Your task to perform on an android device: Add "lenovo thinkpad" to the cart on ebay.com, then select checkout. Image 0: 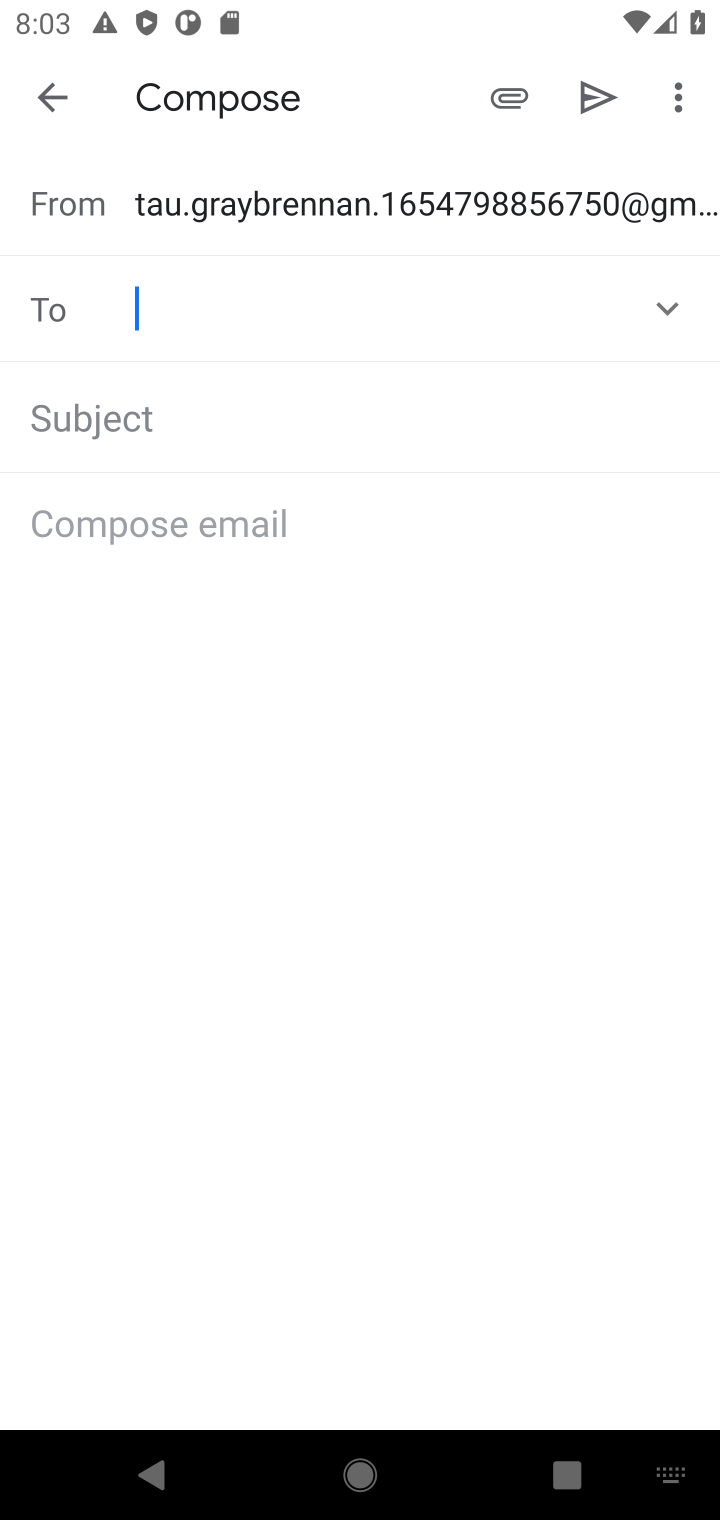
Step 0: press home button
Your task to perform on an android device: Add "lenovo thinkpad" to the cart on ebay.com, then select checkout. Image 1: 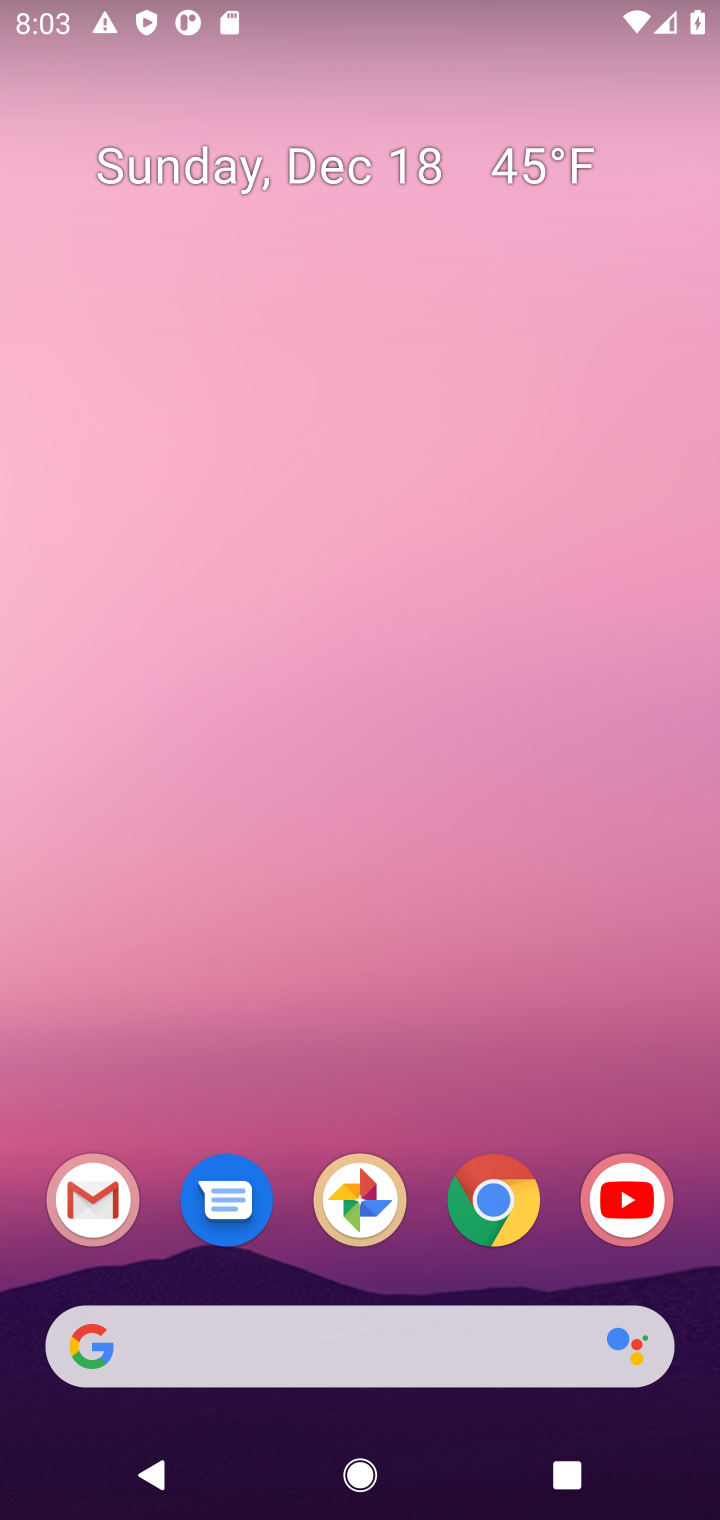
Step 1: click (496, 1216)
Your task to perform on an android device: Add "lenovo thinkpad" to the cart on ebay.com, then select checkout. Image 2: 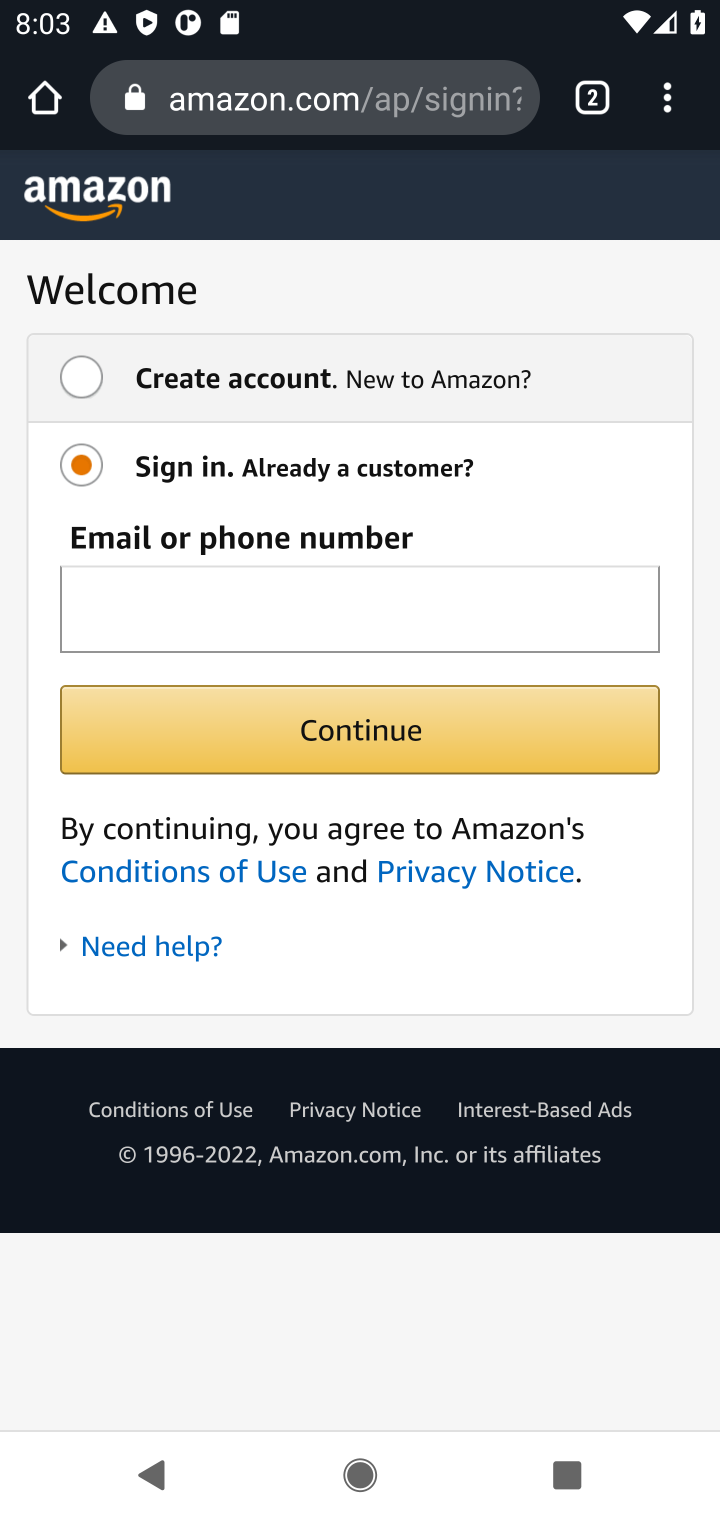
Step 2: click (276, 113)
Your task to perform on an android device: Add "lenovo thinkpad" to the cart on ebay.com, then select checkout. Image 3: 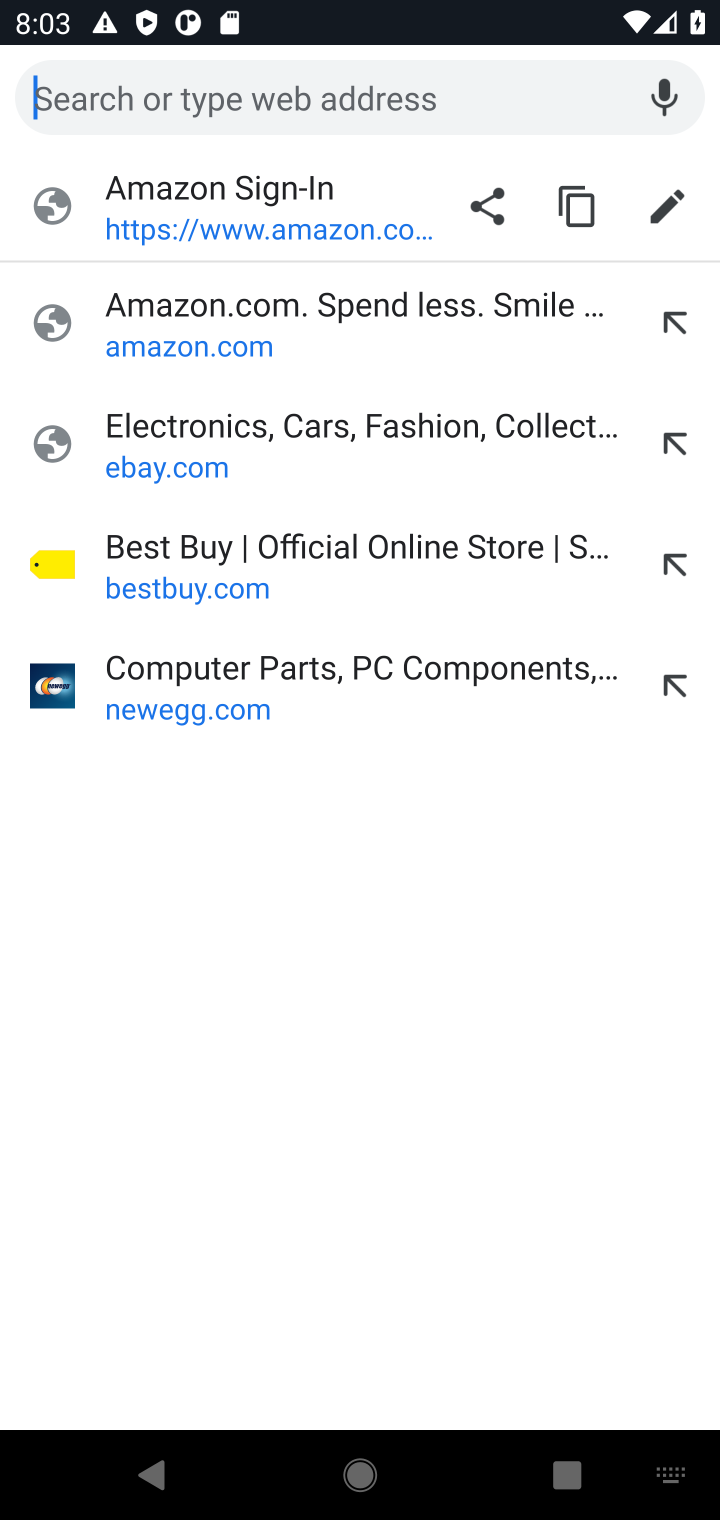
Step 3: click (159, 446)
Your task to perform on an android device: Add "lenovo thinkpad" to the cart on ebay.com, then select checkout. Image 4: 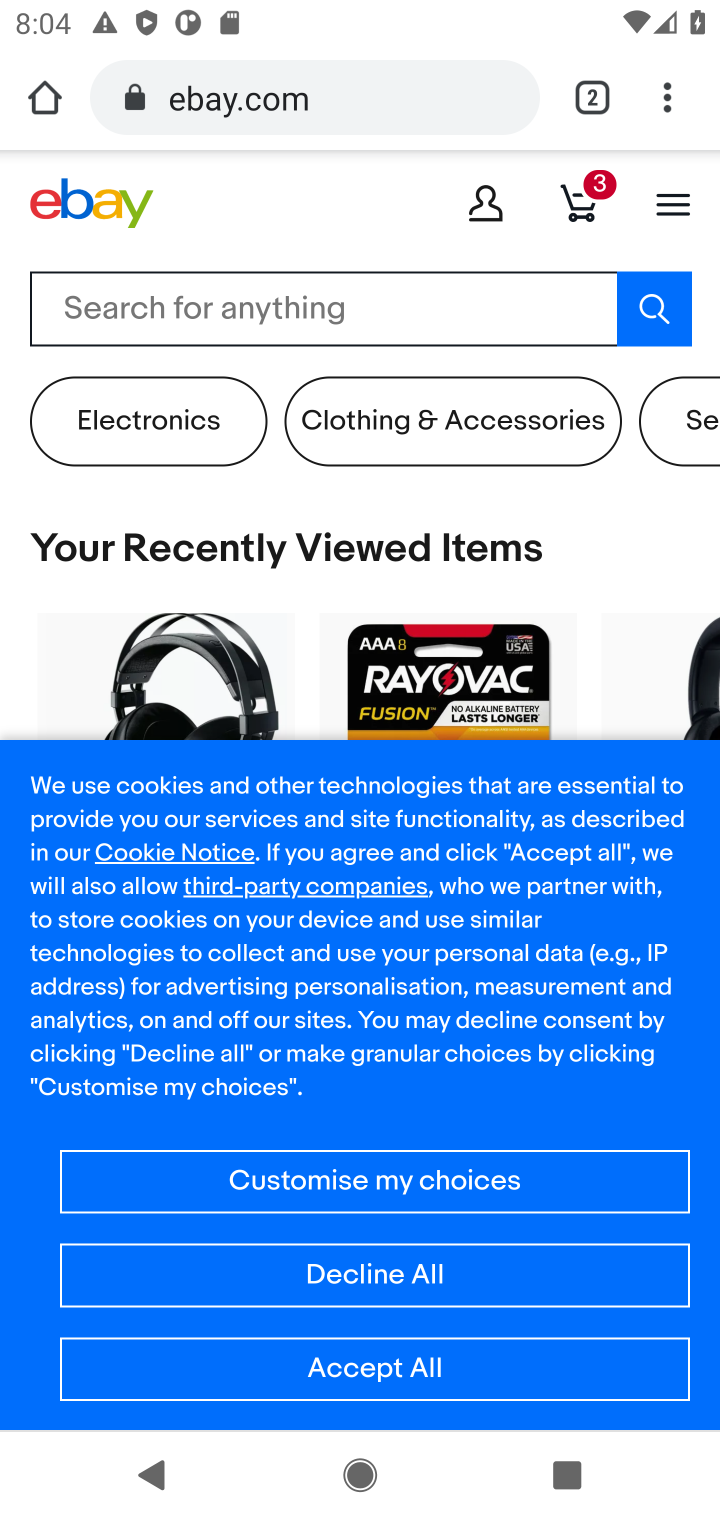
Step 4: click (91, 313)
Your task to perform on an android device: Add "lenovo thinkpad" to the cart on ebay.com, then select checkout. Image 5: 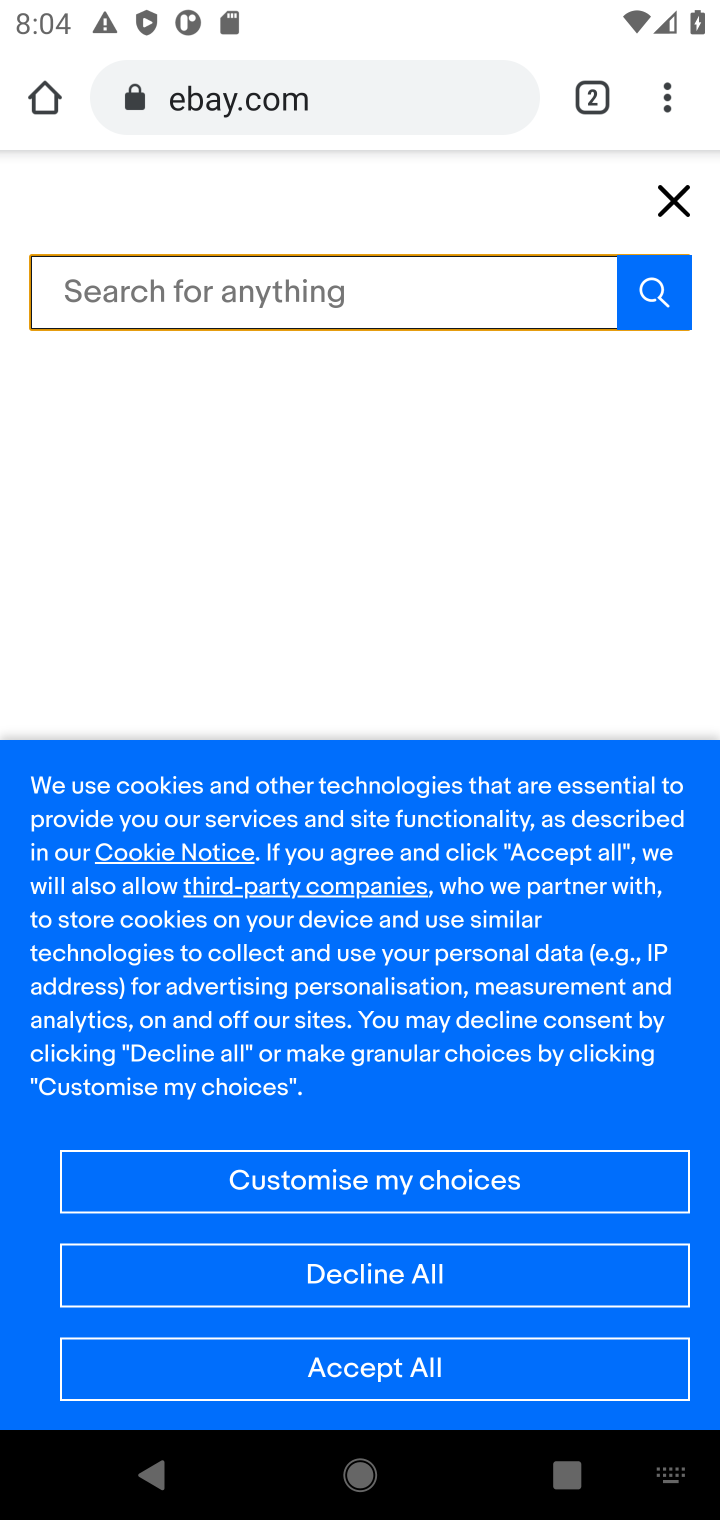
Step 5: type "lenovo thinkpad"
Your task to perform on an android device: Add "lenovo thinkpad" to the cart on ebay.com, then select checkout. Image 6: 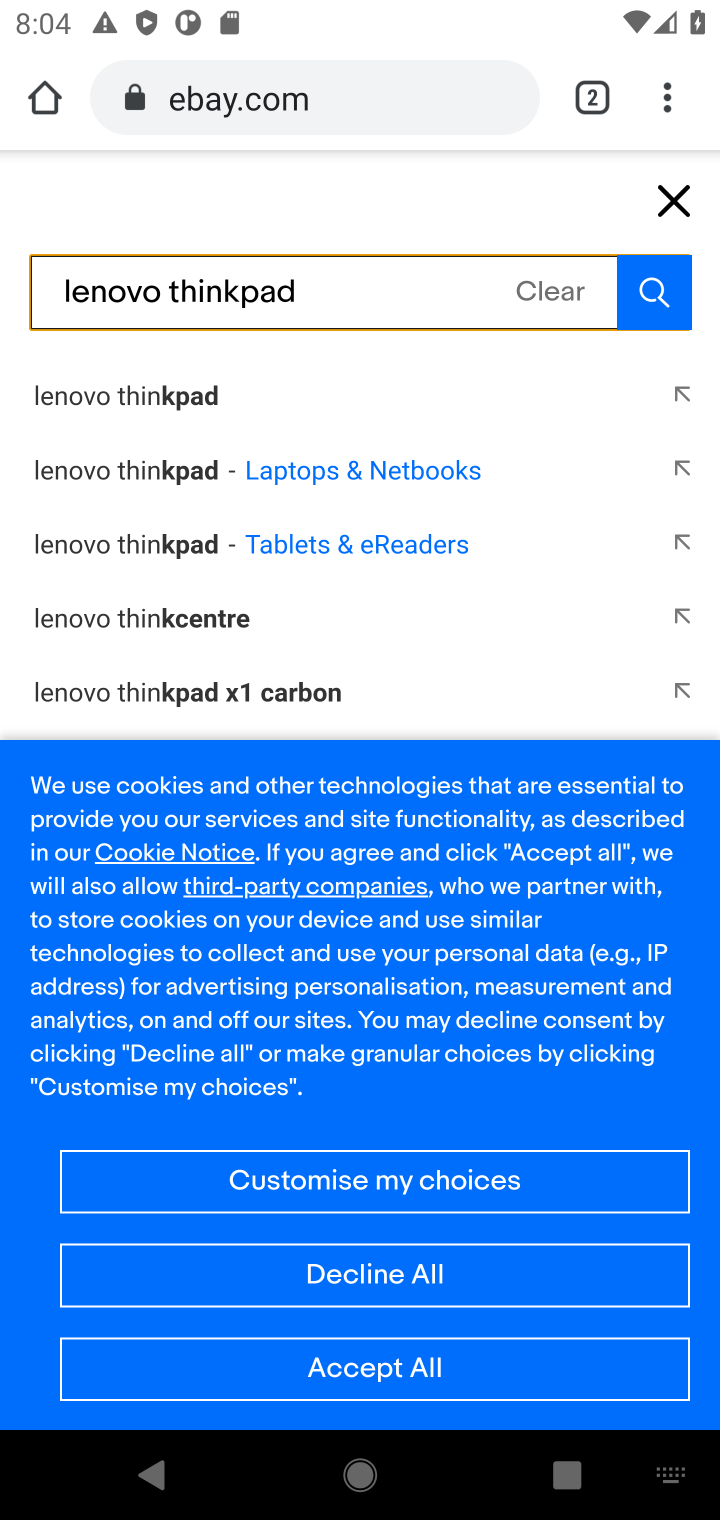
Step 6: click (89, 398)
Your task to perform on an android device: Add "lenovo thinkpad" to the cart on ebay.com, then select checkout. Image 7: 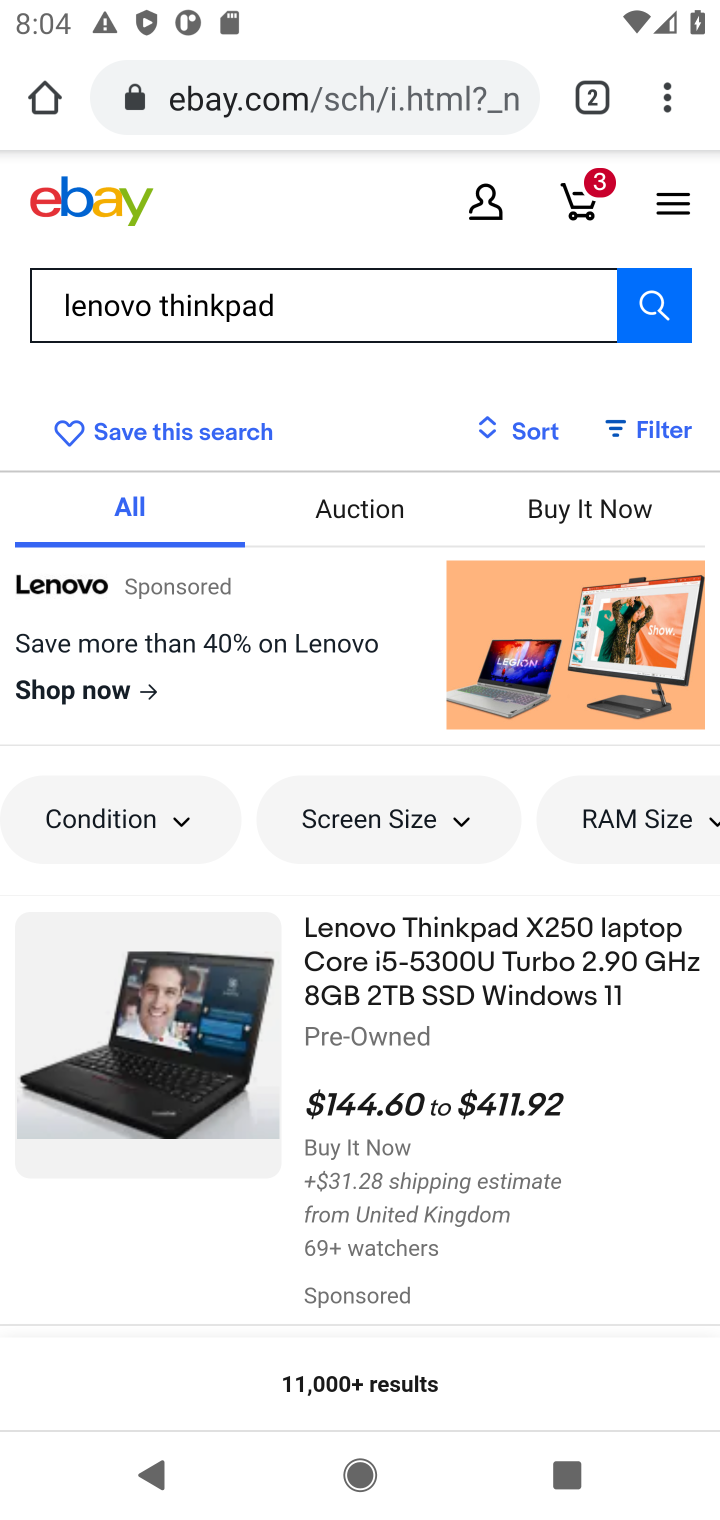
Step 7: drag from (353, 1092) to (325, 603)
Your task to perform on an android device: Add "lenovo thinkpad" to the cart on ebay.com, then select checkout. Image 8: 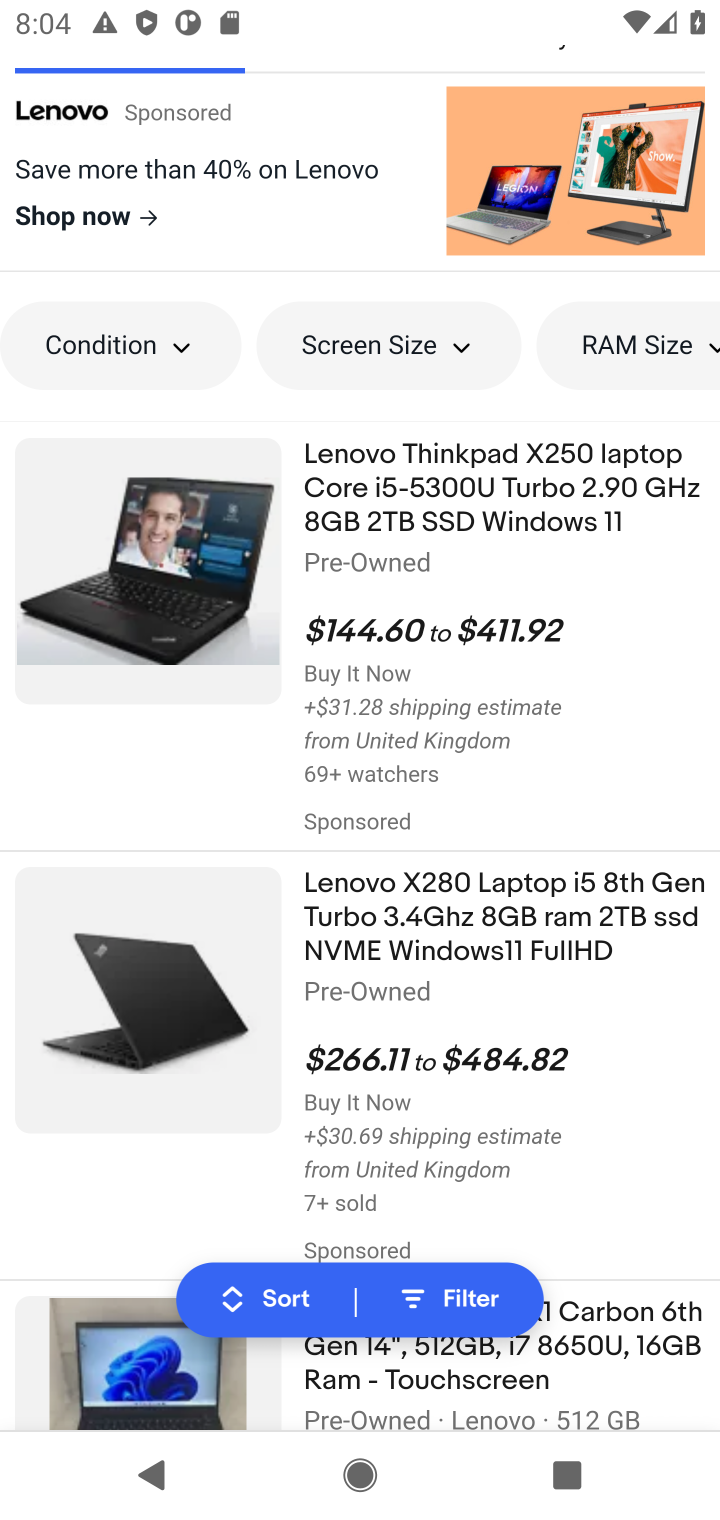
Step 8: click (470, 515)
Your task to perform on an android device: Add "lenovo thinkpad" to the cart on ebay.com, then select checkout. Image 9: 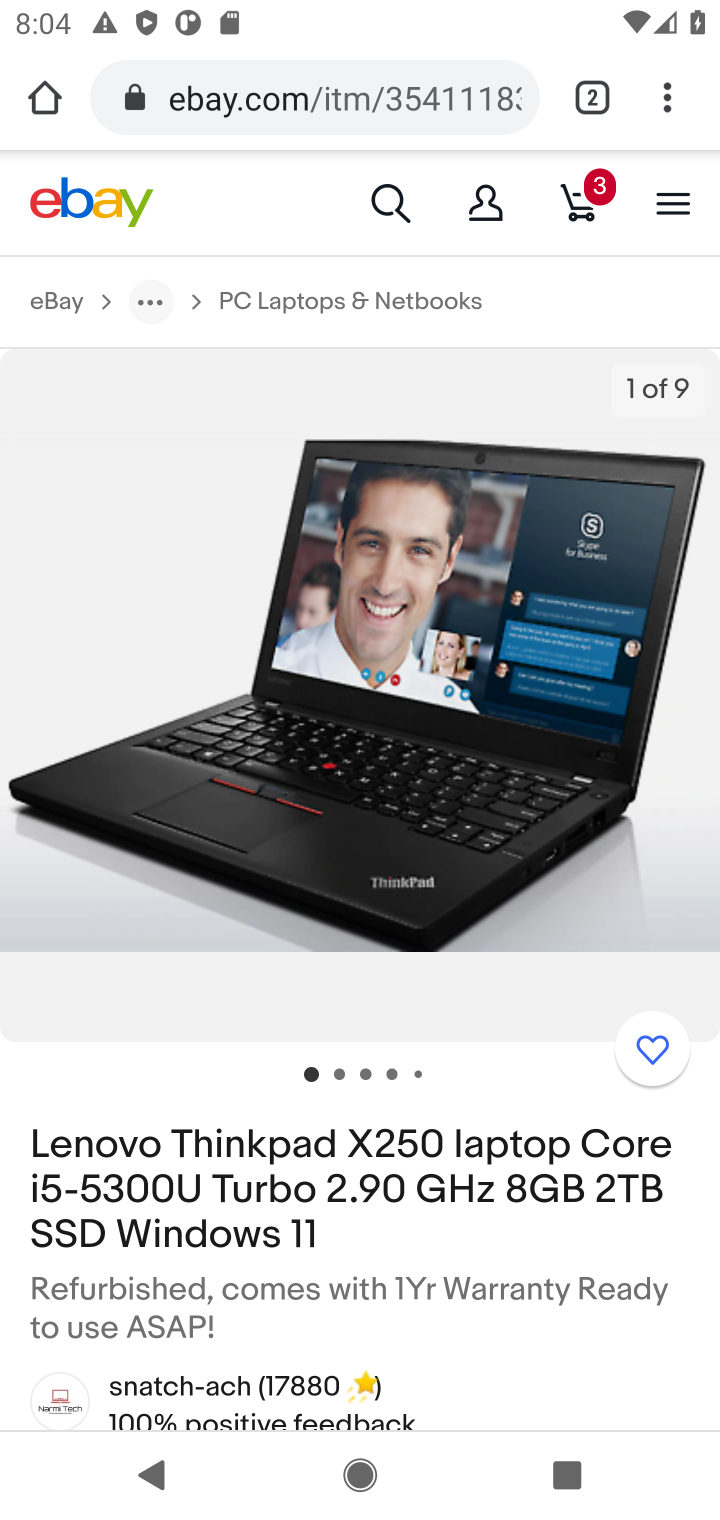
Step 9: drag from (355, 1106) to (351, 402)
Your task to perform on an android device: Add "lenovo thinkpad" to the cart on ebay.com, then select checkout. Image 10: 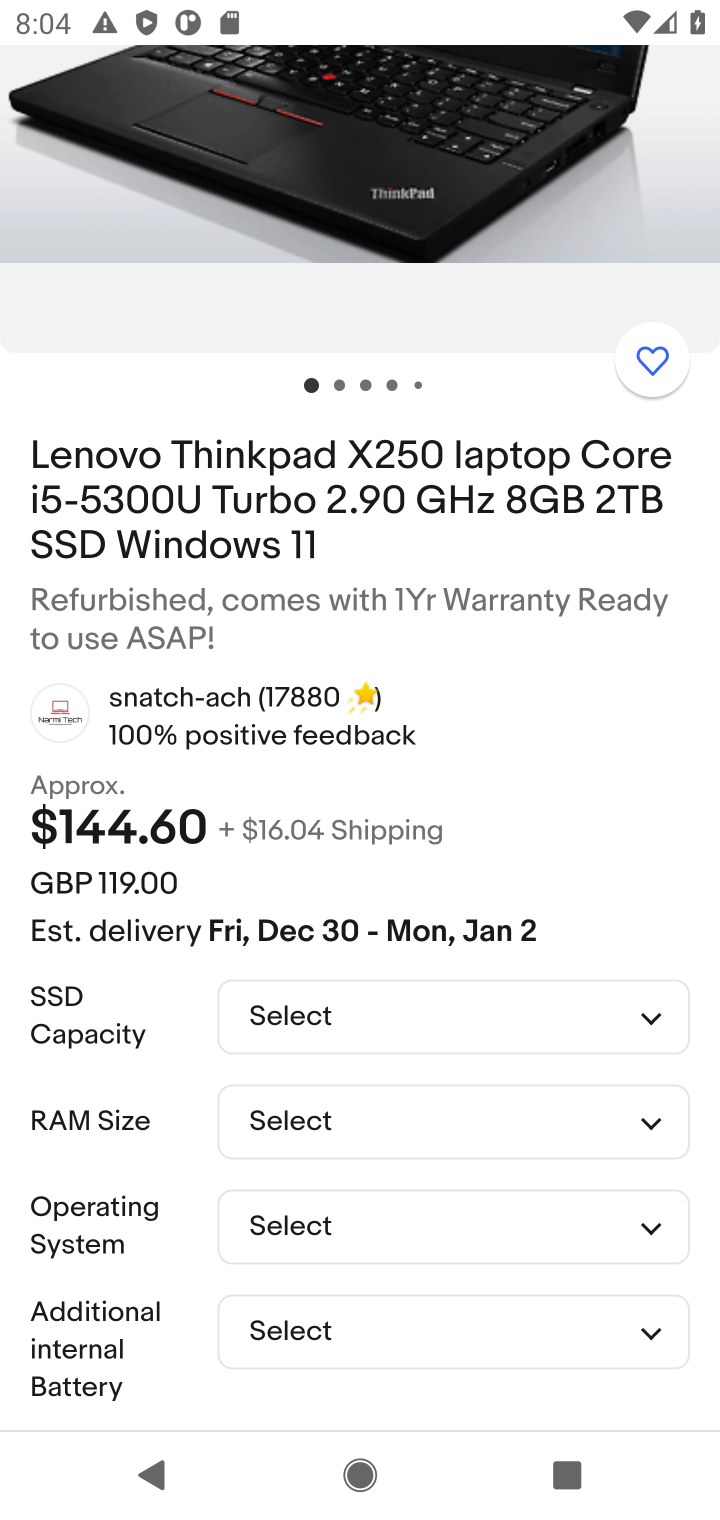
Step 10: drag from (296, 993) to (288, 462)
Your task to perform on an android device: Add "lenovo thinkpad" to the cart on ebay.com, then select checkout. Image 11: 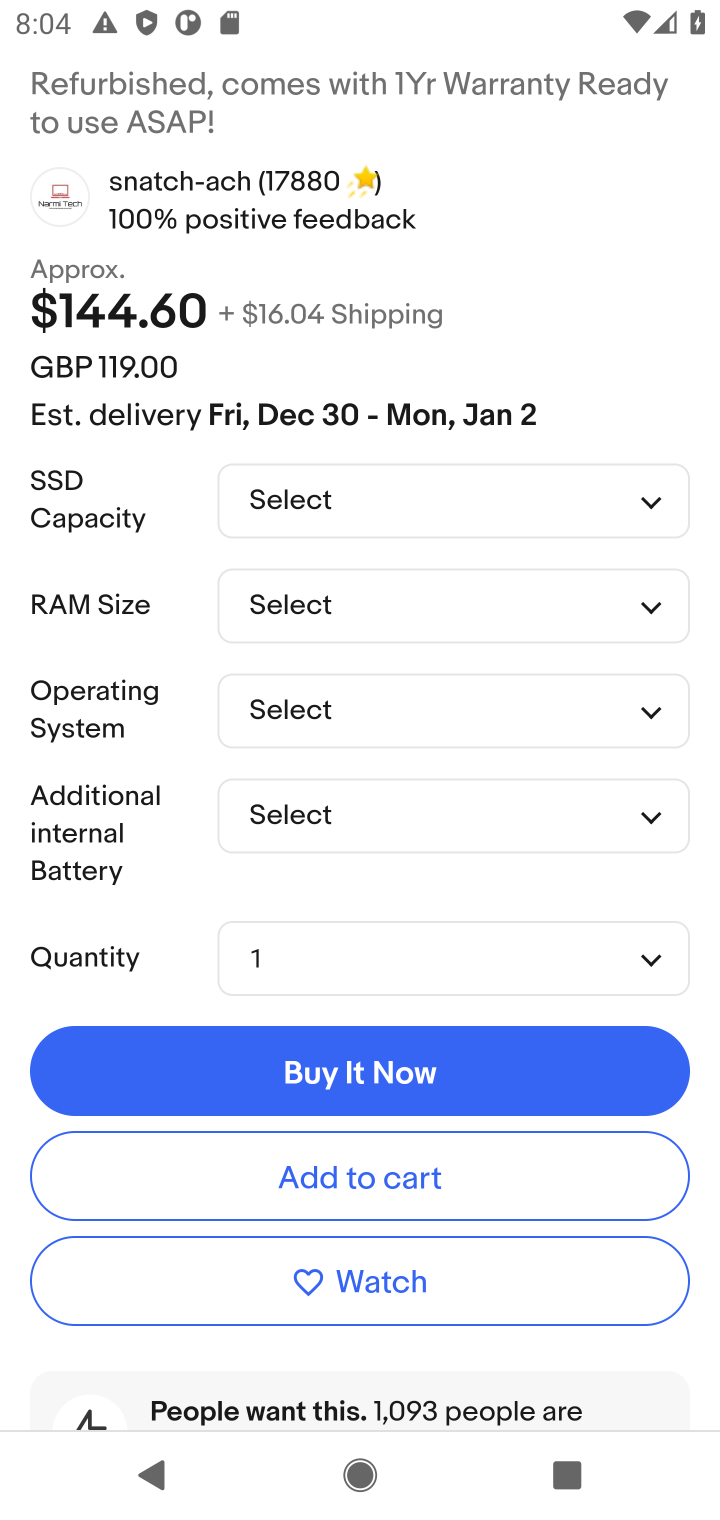
Step 11: click (315, 1174)
Your task to perform on an android device: Add "lenovo thinkpad" to the cart on ebay.com, then select checkout. Image 12: 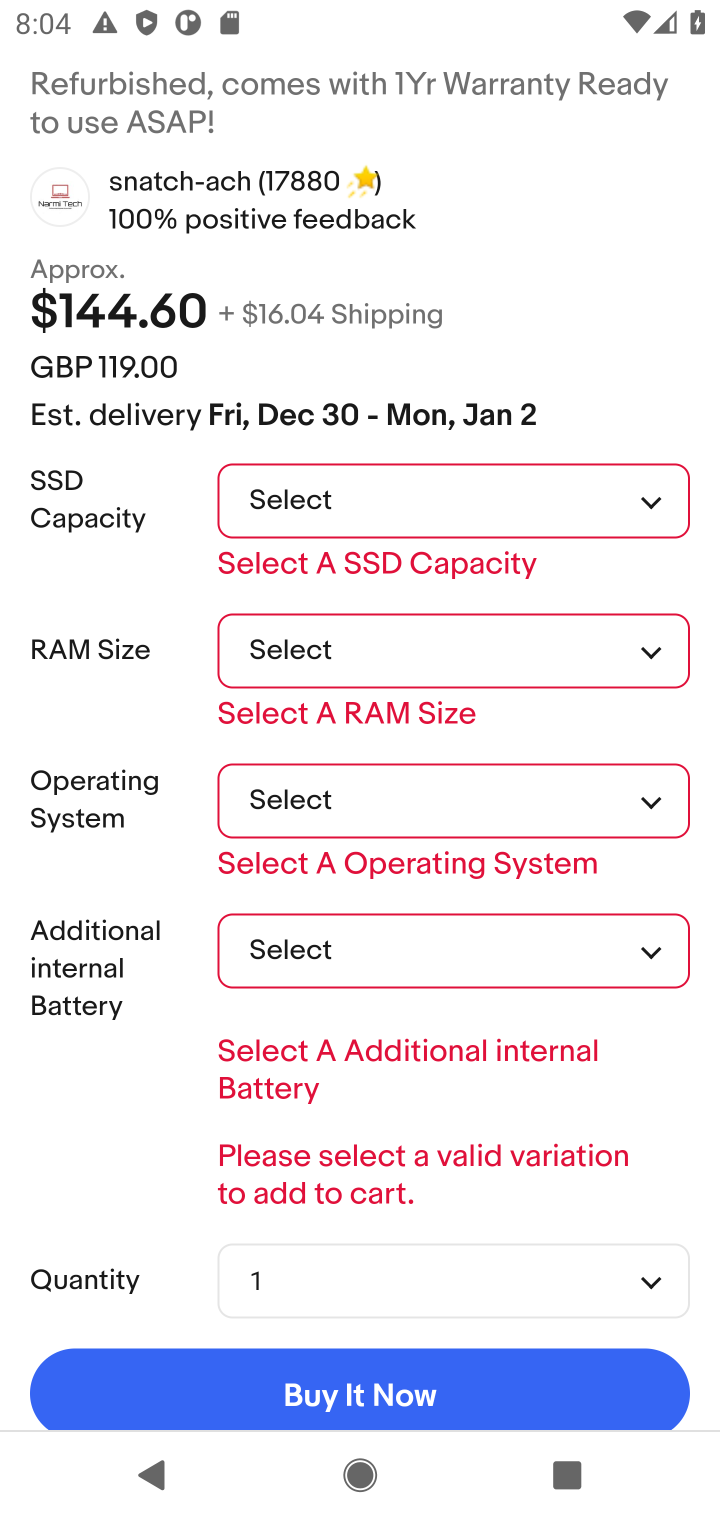
Step 12: click (647, 511)
Your task to perform on an android device: Add "lenovo thinkpad" to the cart on ebay.com, then select checkout. Image 13: 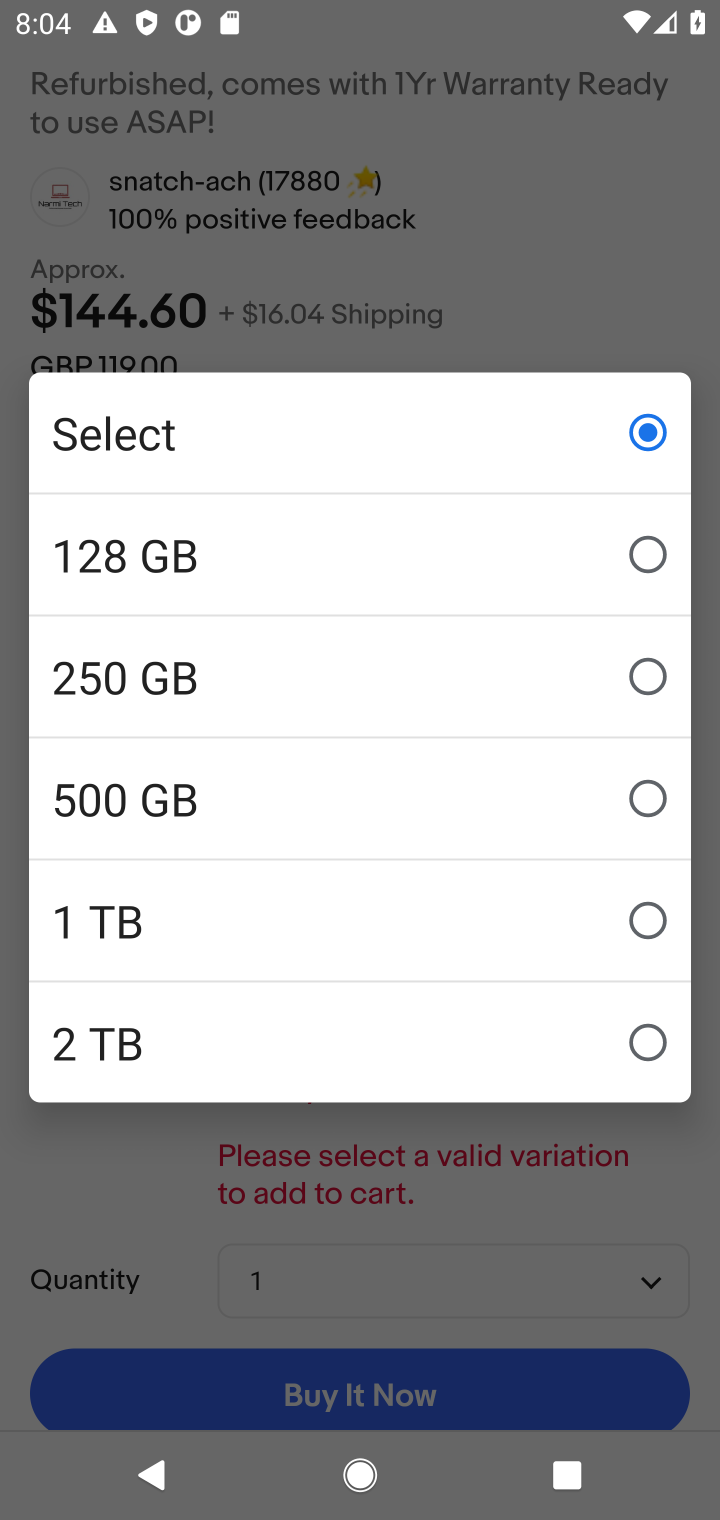
Step 13: click (257, 572)
Your task to perform on an android device: Add "lenovo thinkpad" to the cart on ebay.com, then select checkout. Image 14: 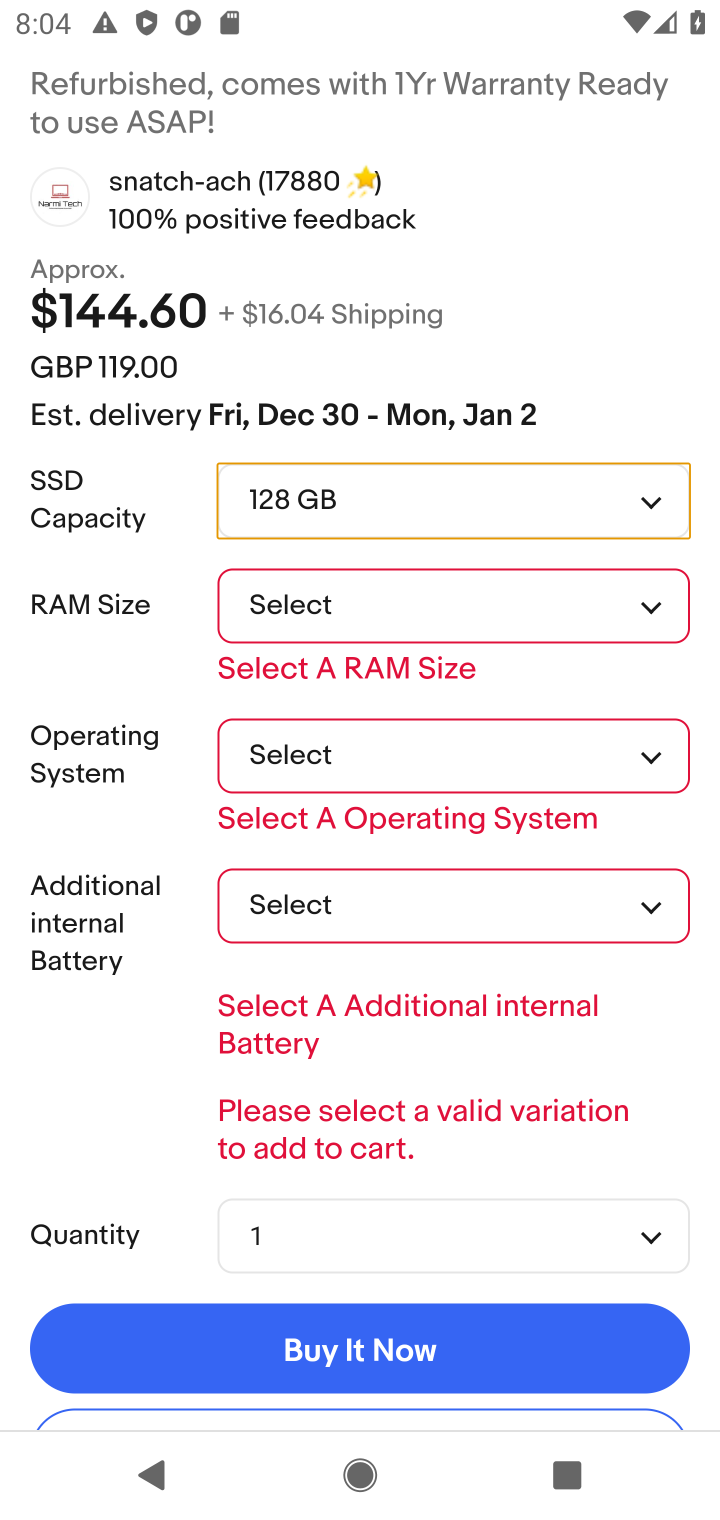
Step 14: click (641, 628)
Your task to perform on an android device: Add "lenovo thinkpad" to the cart on ebay.com, then select checkout. Image 15: 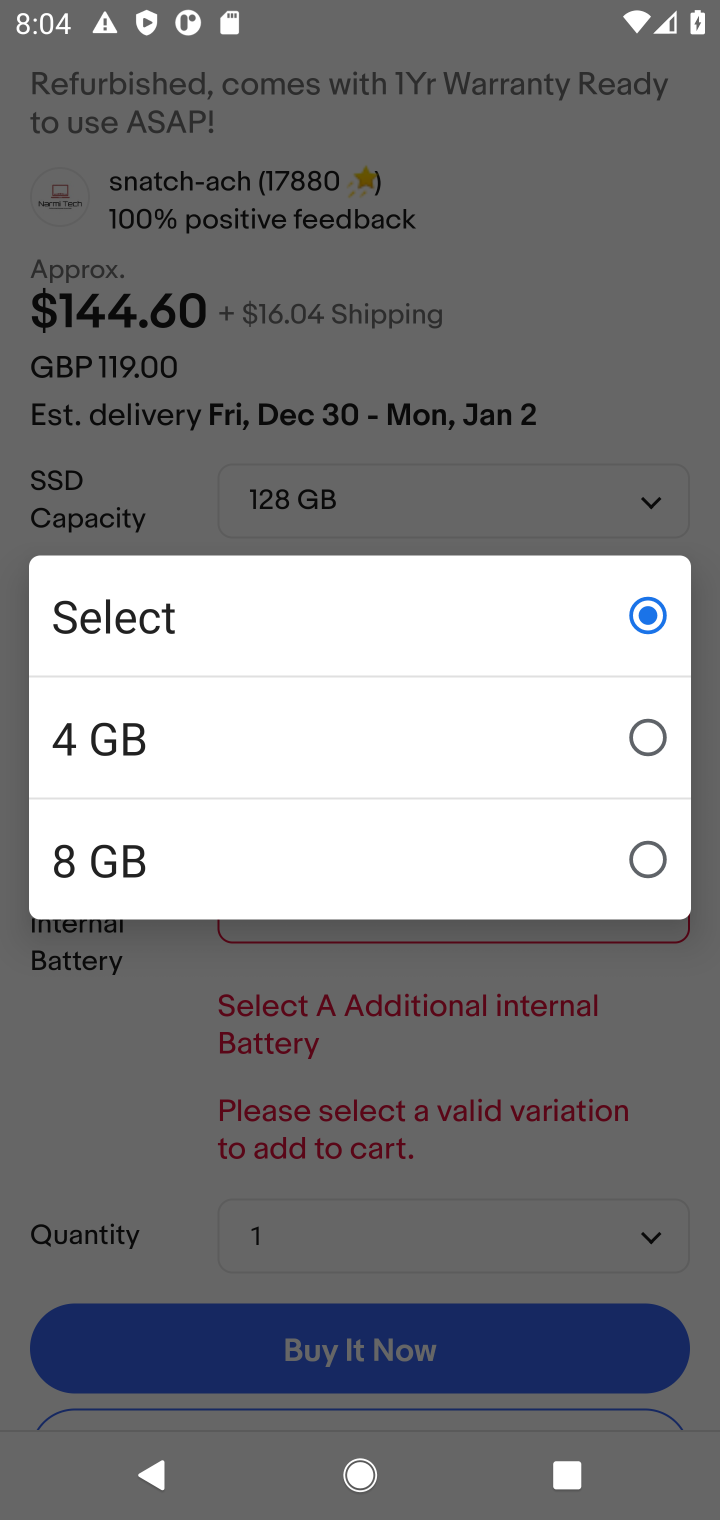
Step 15: click (150, 722)
Your task to perform on an android device: Add "lenovo thinkpad" to the cart on ebay.com, then select checkout. Image 16: 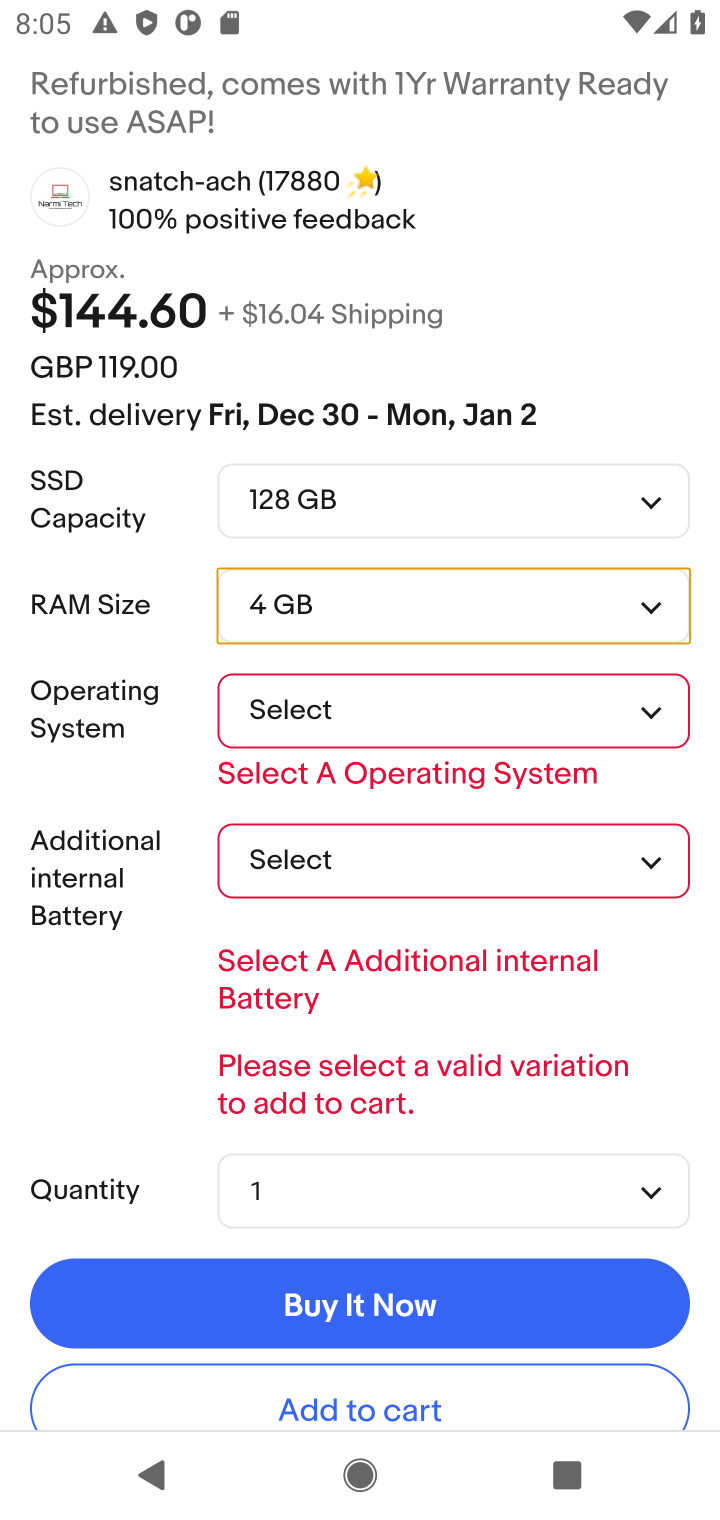
Step 16: click (657, 701)
Your task to perform on an android device: Add "lenovo thinkpad" to the cart on ebay.com, then select checkout. Image 17: 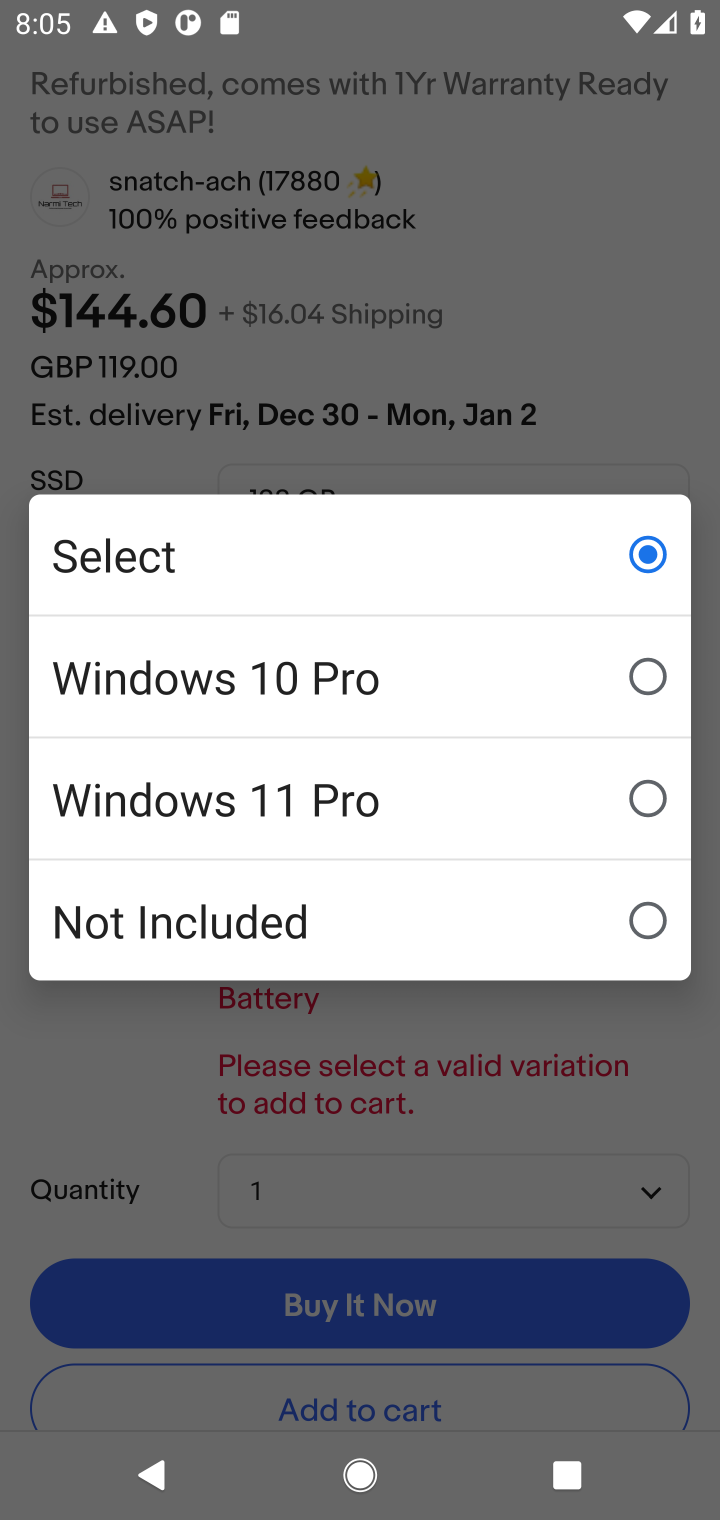
Step 17: click (198, 685)
Your task to perform on an android device: Add "lenovo thinkpad" to the cart on ebay.com, then select checkout. Image 18: 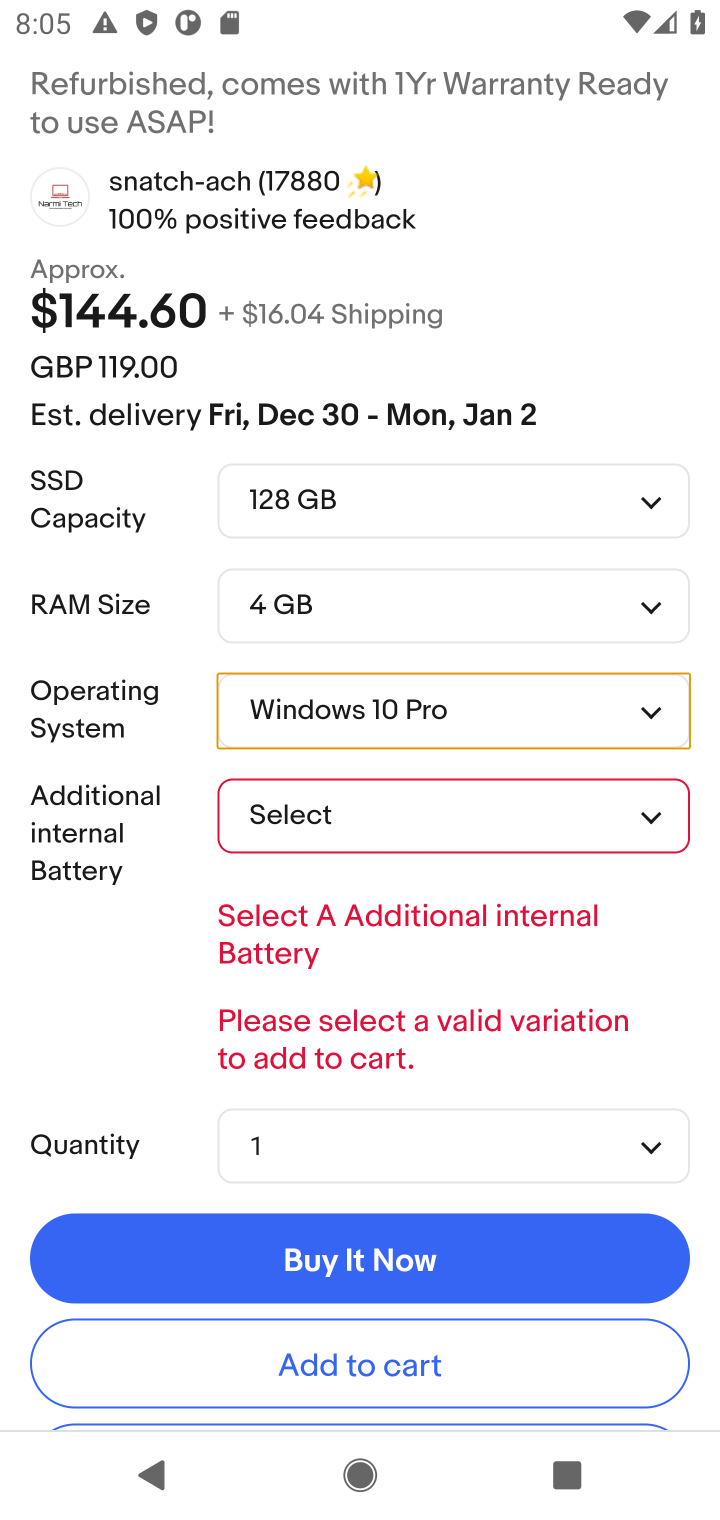
Step 18: click (661, 823)
Your task to perform on an android device: Add "lenovo thinkpad" to the cart on ebay.com, then select checkout. Image 19: 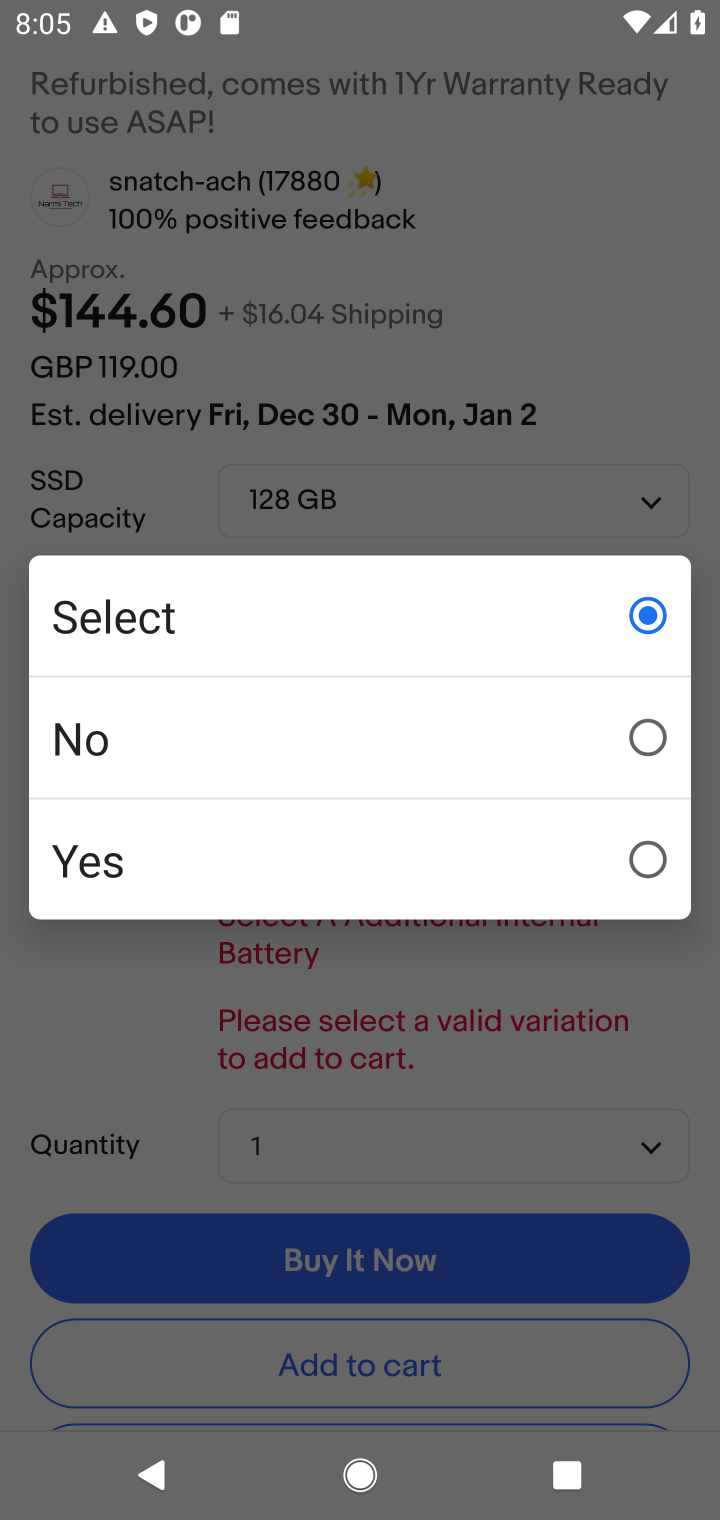
Step 19: click (115, 757)
Your task to perform on an android device: Add "lenovo thinkpad" to the cart on ebay.com, then select checkout. Image 20: 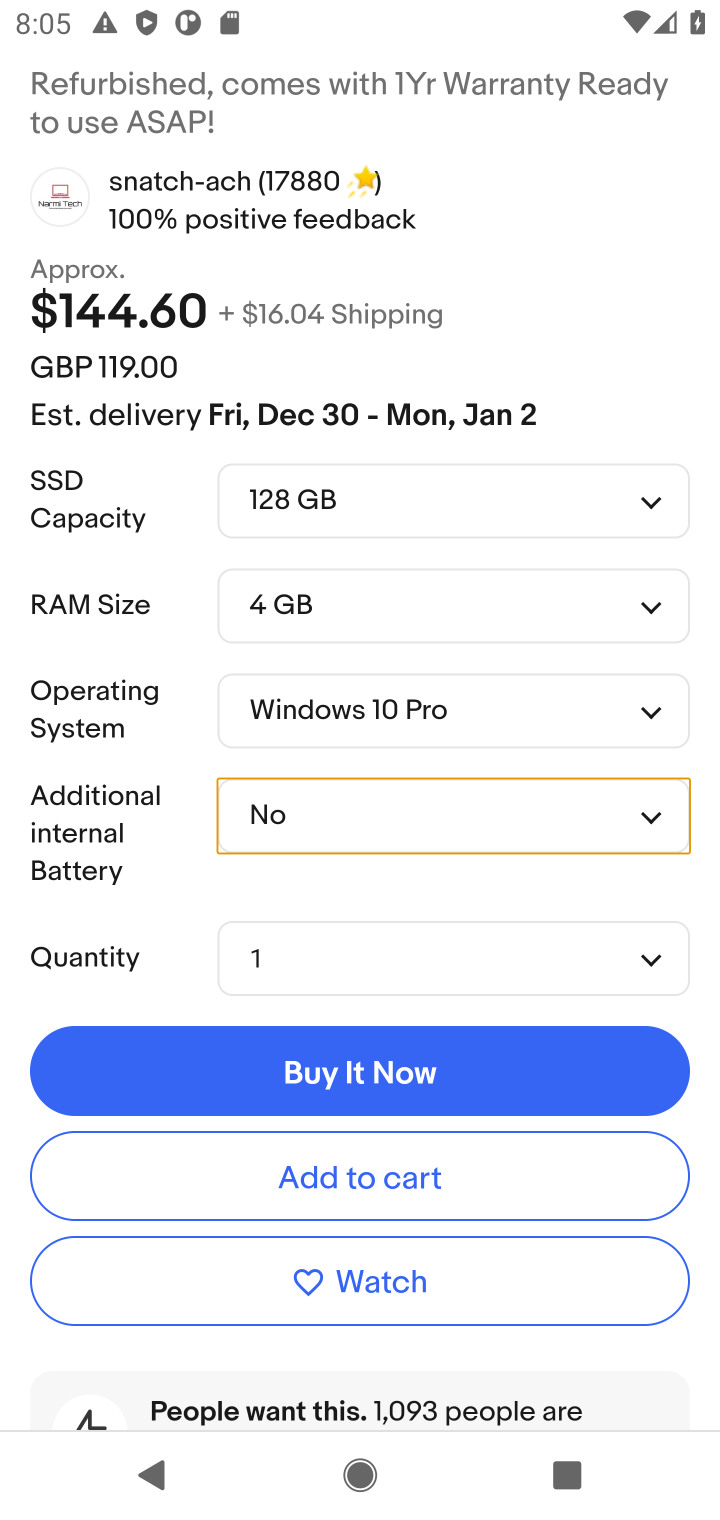
Step 20: click (358, 1195)
Your task to perform on an android device: Add "lenovo thinkpad" to the cart on ebay.com, then select checkout. Image 21: 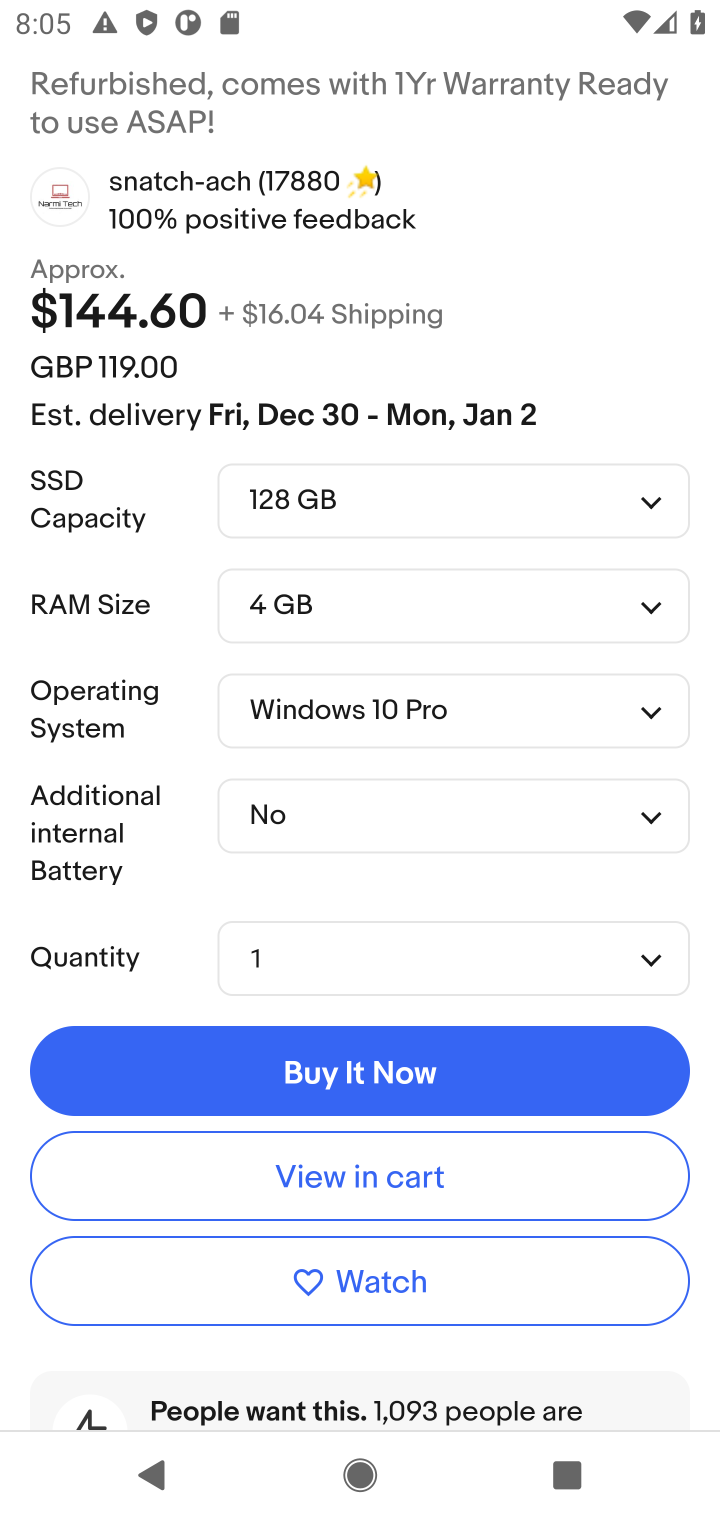
Step 21: click (341, 1170)
Your task to perform on an android device: Add "lenovo thinkpad" to the cart on ebay.com, then select checkout. Image 22: 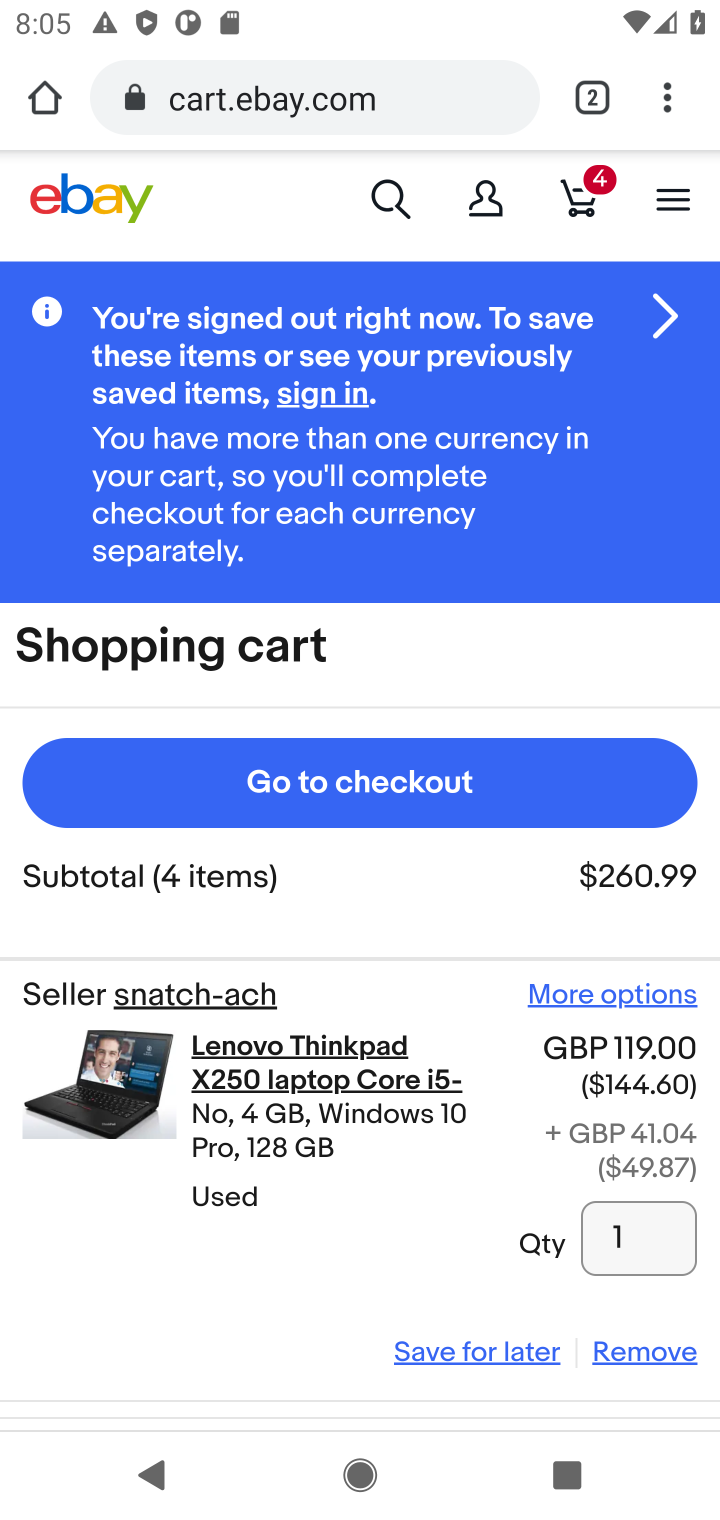
Step 22: click (325, 791)
Your task to perform on an android device: Add "lenovo thinkpad" to the cart on ebay.com, then select checkout. Image 23: 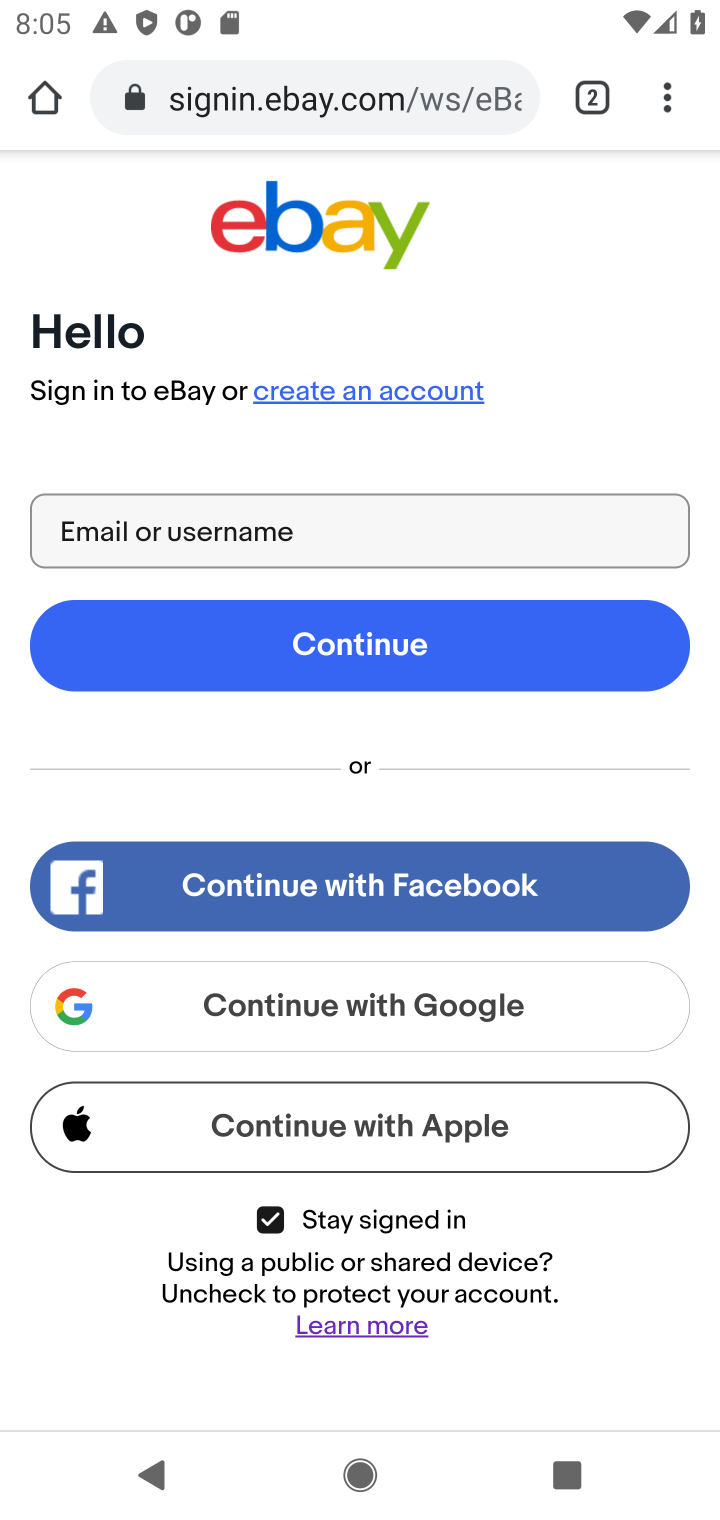
Step 23: task complete